Your task to perform on an android device: allow cookies in the chrome app Image 0: 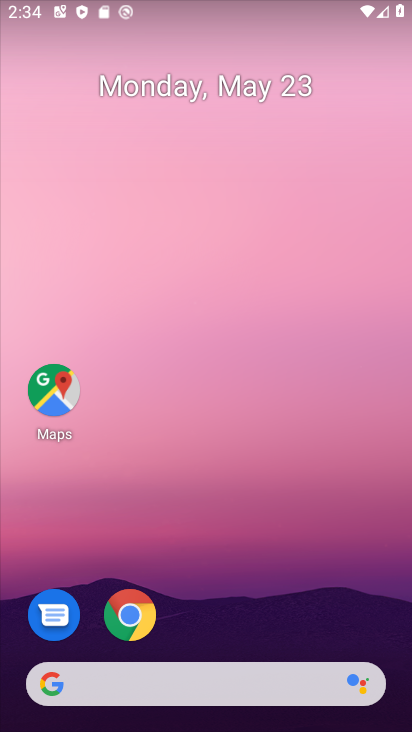
Step 0: drag from (372, 636) to (314, 154)
Your task to perform on an android device: allow cookies in the chrome app Image 1: 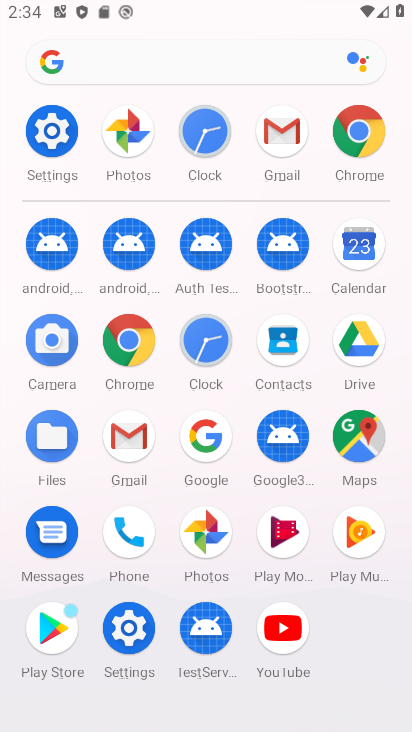
Step 1: click (133, 347)
Your task to perform on an android device: allow cookies in the chrome app Image 2: 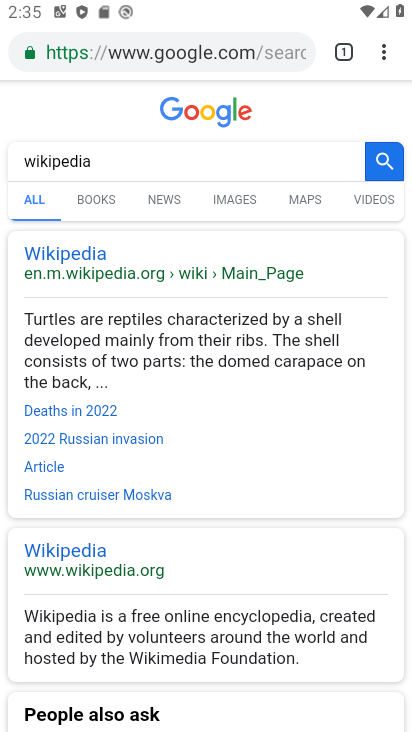
Step 2: click (385, 55)
Your task to perform on an android device: allow cookies in the chrome app Image 3: 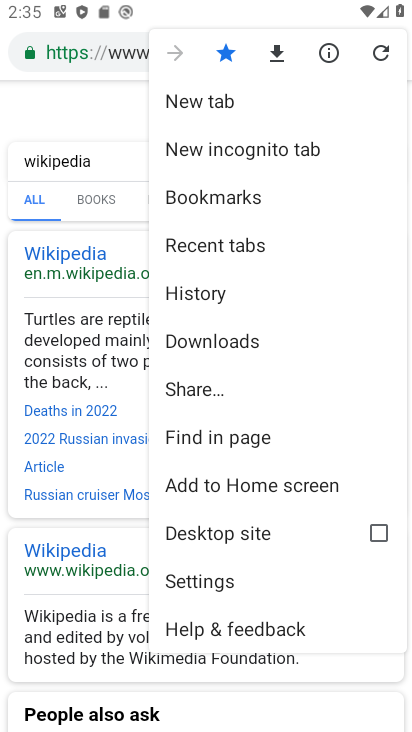
Step 3: click (254, 580)
Your task to perform on an android device: allow cookies in the chrome app Image 4: 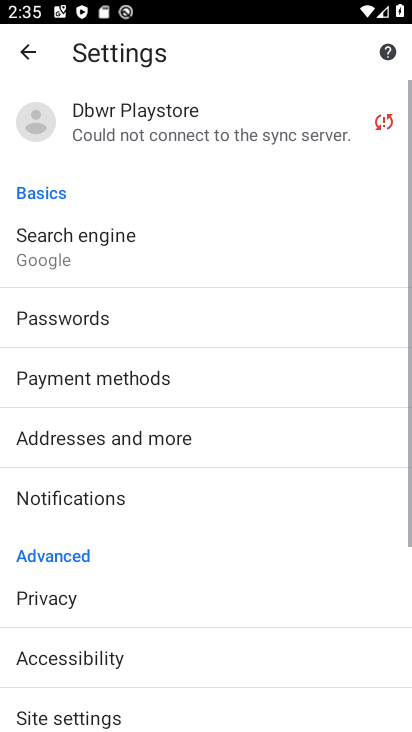
Step 4: drag from (255, 596) to (269, 514)
Your task to perform on an android device: allow cookies in the chrome app Image 5: 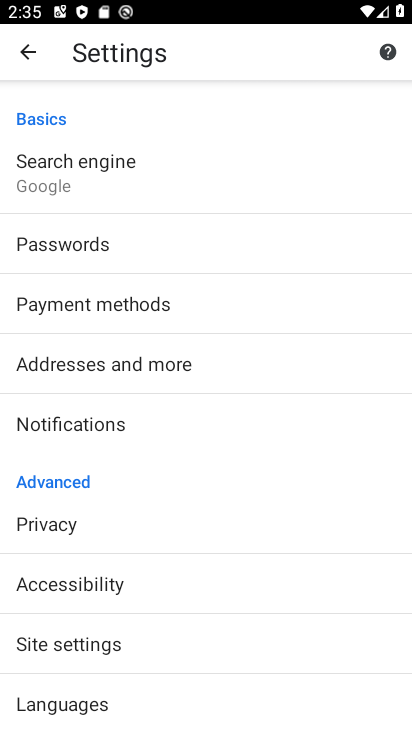
Step 5: drag from (283, 640) to (291, 543)
Your task to perform on an android device: allow cookies in the chrome app Image 6: 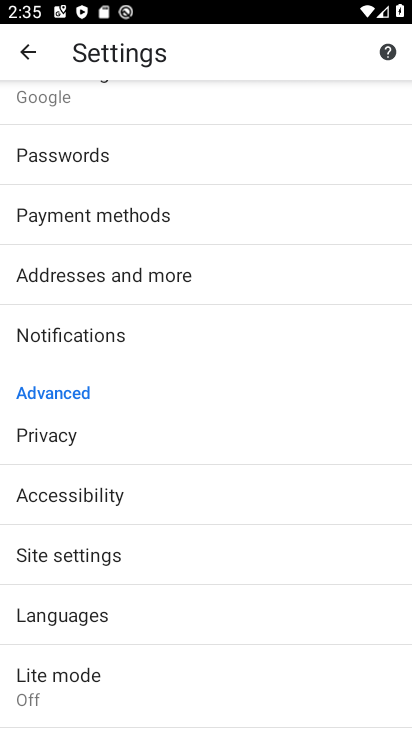
Step 6: drag from (289, 657) to (305, 558)
Your task to perform on an android device: allow cookies in the chrome app Image 7: 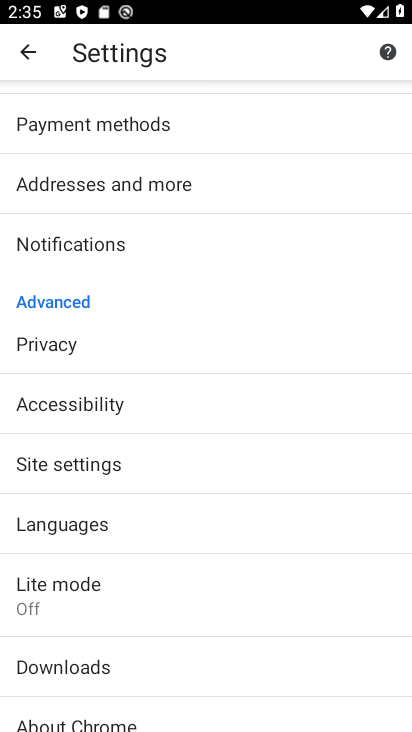
Step 7: drag from (290, 681) to (284, 550)
Your task to perform on an android device: allow cookies in the chrome app Image 8: 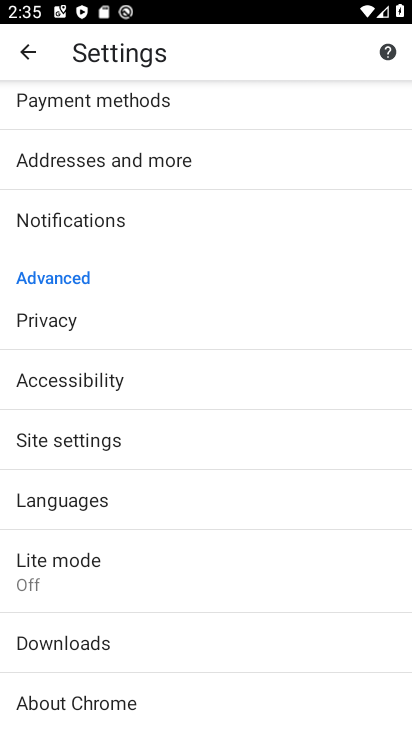
Step 8: drag from (296, 365) to (302, 457)
Your task to perform on an android device: allow cookies in the chrome app Image 9: 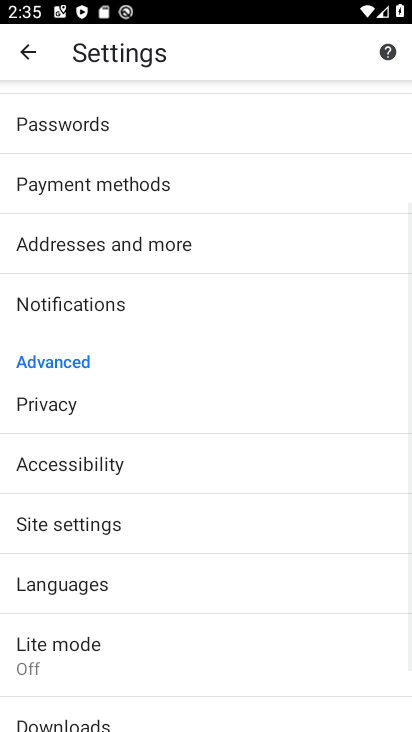
Step 9: drag from (298, 318) to (299, 408)
Your task to perform on an android device: allow cookies in the chrome app Image 10: 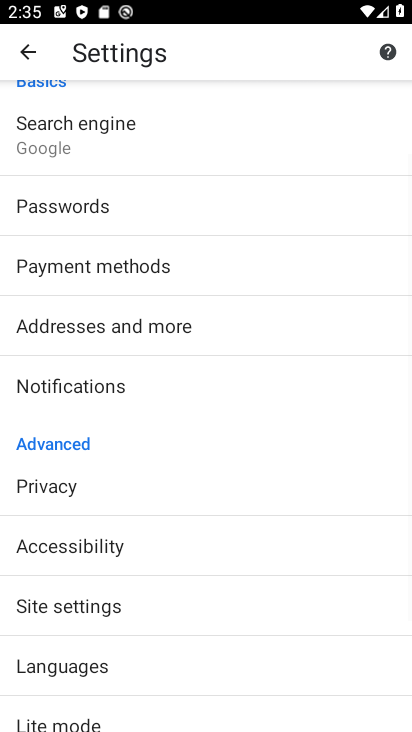
Step 10: drag from (297, 291) to (303, 401)
Your task to perform on an android device: allow cookies in the chrome app Image 11: 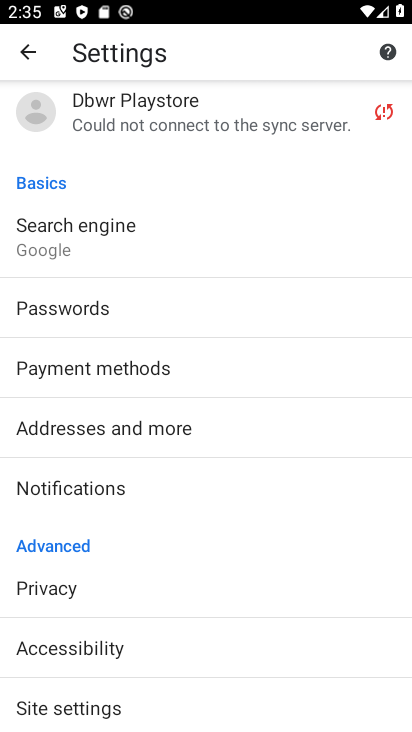
Step 11: drag from (301, 289) to (291, 390)
Your task to perform on an android device: allow cookies in the chrome app Image 12: 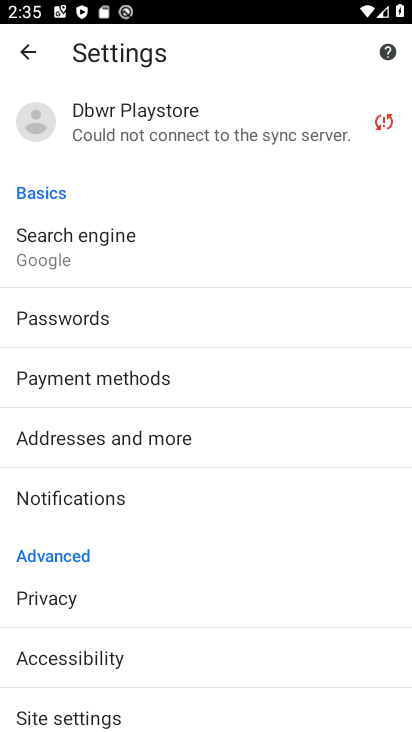
Step 12: drag from (273, 565) to (277, 472)
Your task to perform on an android device: allow cookies in the chrome app Image 13: 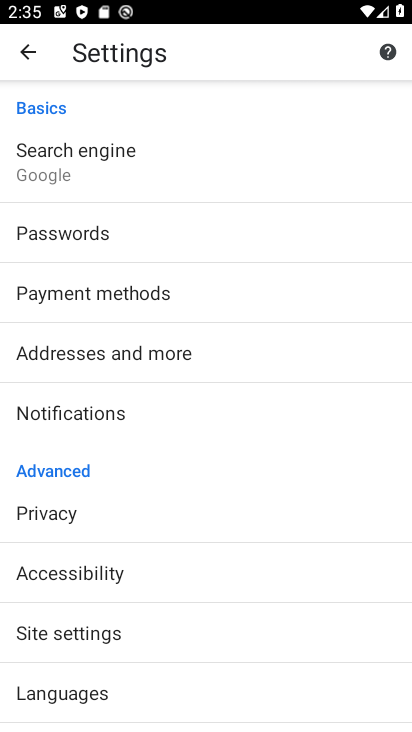
Step 13: drag from (274, 584) to (280, 414)
Your task to perform on an android device: allow cookies in the chrome app Image 14: 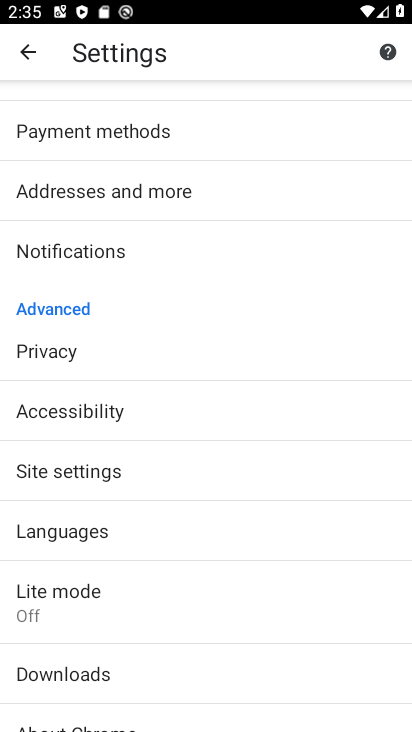
Step 14: click (249, 473)
Your task to perform on an android device: allow cookies in the chrome app Image 15: 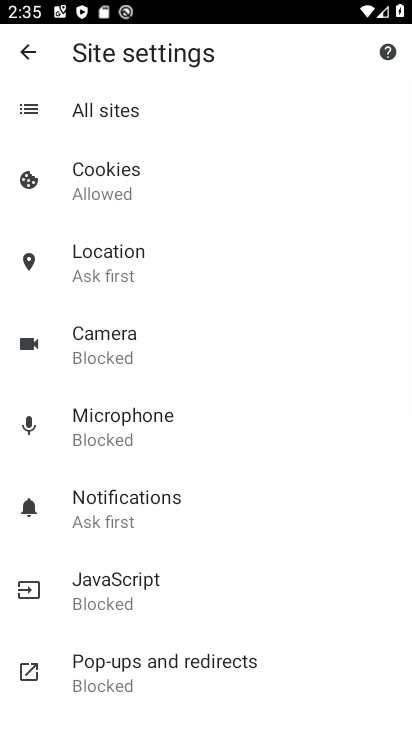
Step 15: drag from (288, 623) to (289, 545)
Your task to perform on an android device: allow cookies in the chrome app Image 16: 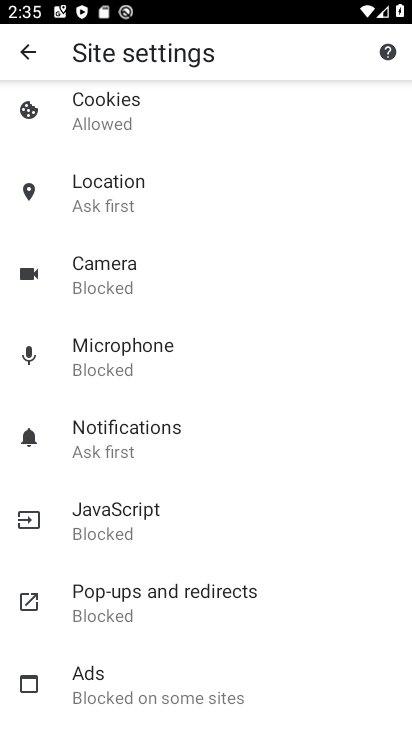
Step 16: drag from (322, 651) to (326, 573)
Your task to perform on an android device: allow cookies in the chrome app Image 17: 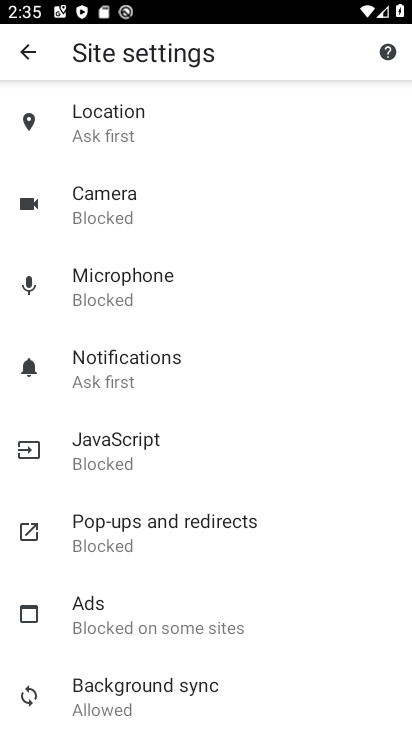
Step 17: drag from (310, 678) to (306, 530)
Your task to perform on an android device: allow cookies in the chrome app Image 18: 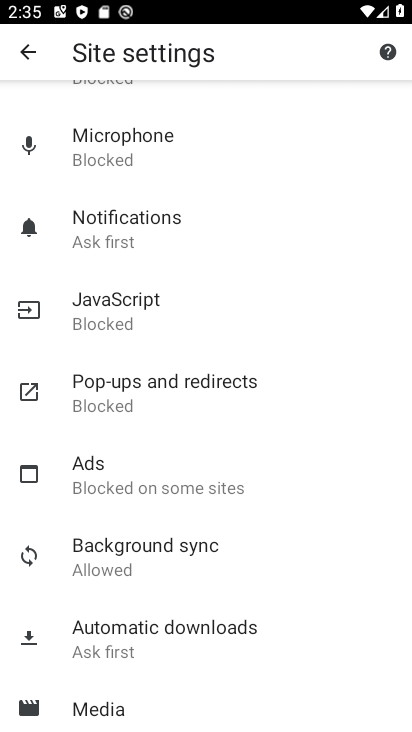
Step 18: drag from (331, 596) to (344, 458)
Your task to perform on an android device: allow cookies in the chrome app Image 19: 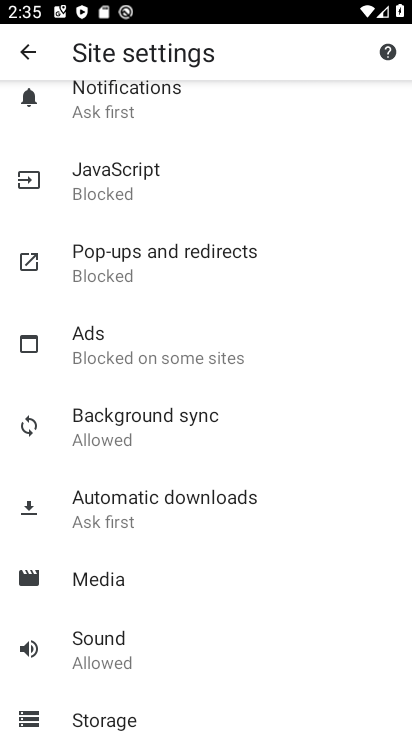
Step 19: drag from (342, 587) to (355, 426)
Your task to perform on an android device: allow cookies in the chrome app Image 20: 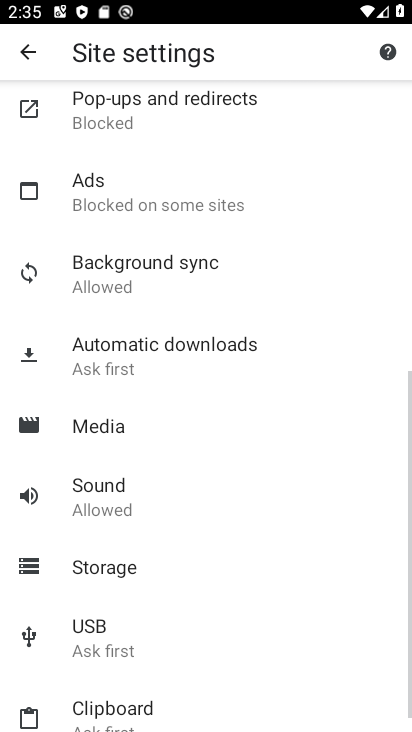
Step 20: drag from (347, 325) to (337, 418)
Your task to perform on an android device: allow cookies in the chrome app Image 21: 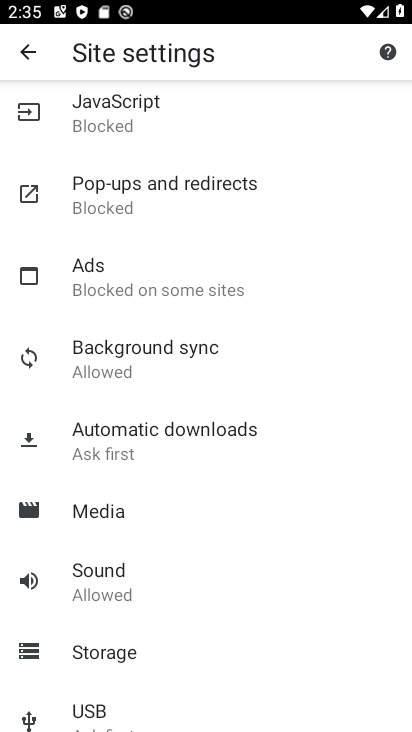
Step 21: drag from (342, 274) to (318, 374)
Your task to perform on an android device: allow cookies in the chrome app Image 22: 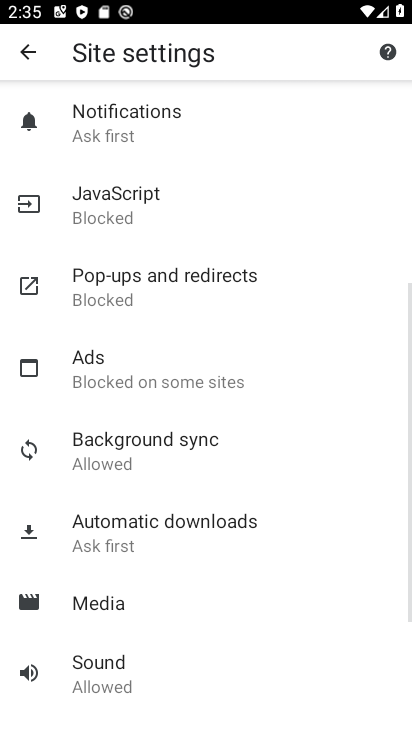
Step 22: drag from (315, 239) to (323, 401)
Your task to perform on an android device: allow cookies in the chrome app Image 23: 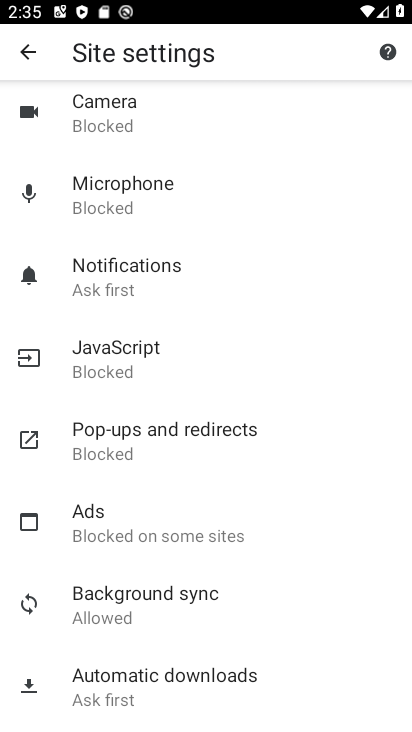
Step 23: drag from (318, 231) to (321, 387)
Your task to perform on an android device: allow cookies in the chrome app Image 24: 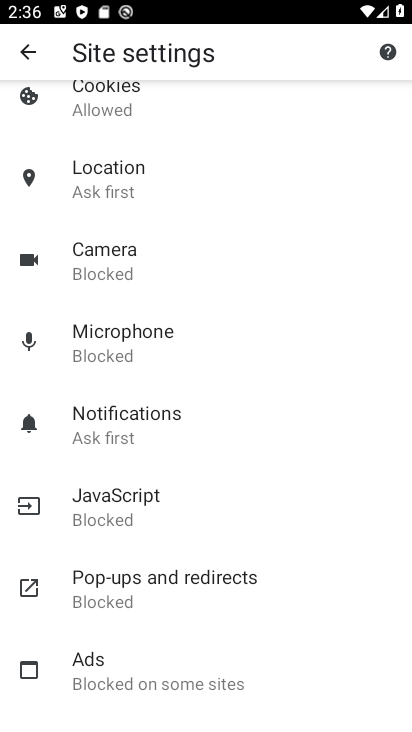
Step 24: drag from (287, 228) to (291, 364)
Your task to perform on an android device: allow cookies in the chrome app Image 25: 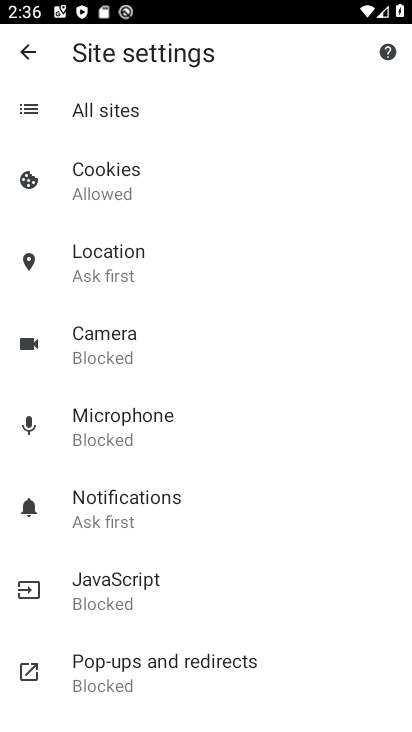
Step 25: click (135, 202)
Your task to perform on an android device: allow cookies in the chrome app Image 26: 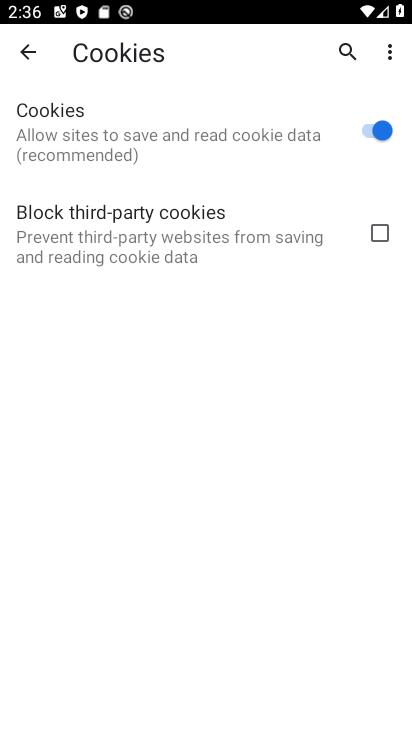
Step 26: task complete